Your task to perform on an android device: turn on wifi Image 0: 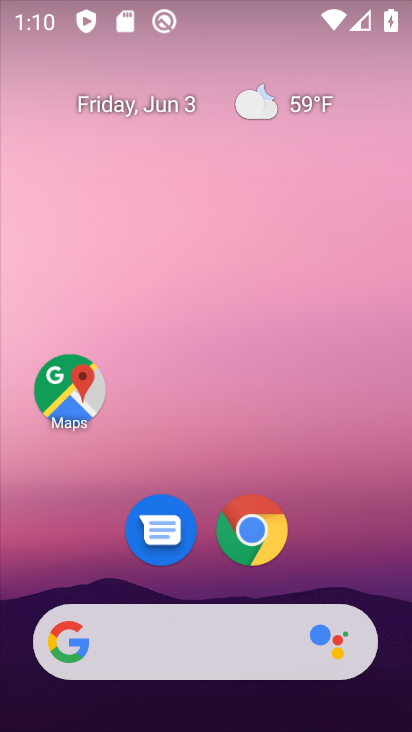
Step 0: drag from (208, 574) to (200, 3)
Your task to perform on an android device: turn on wifi Image 1: 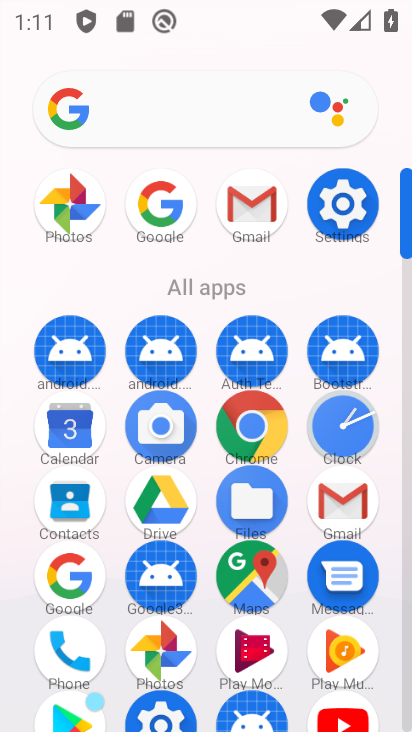
Step 1: click (333, 189)
Your task to perform on an android device: turn on wifi Image 2: 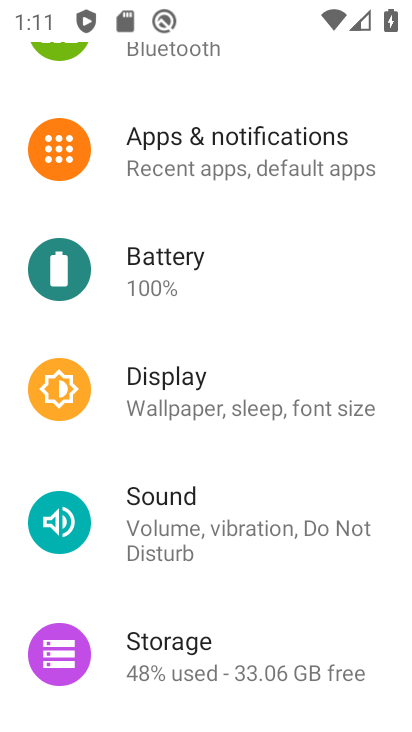
Step 2: drag from (209, 185) to (247, 655)
Your task to perform on an android device: turn on wifi Image 3: 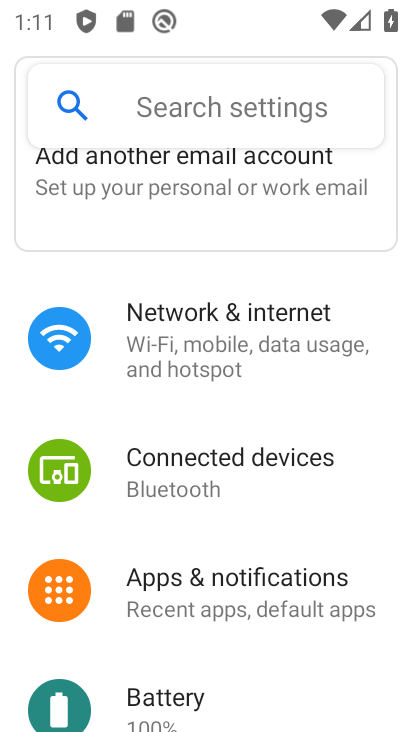
Step 3: click (228, 330)
Your task to perform on an android device: turn on wifi Image 4: 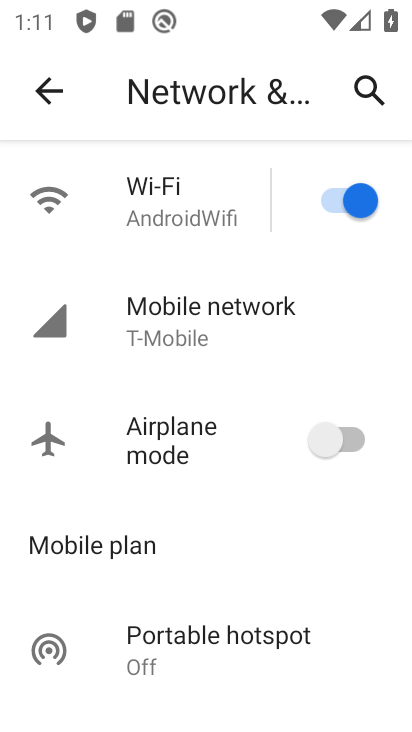
Step 4: task complete